Your task to perform on an android device: change timer sound Image 0: 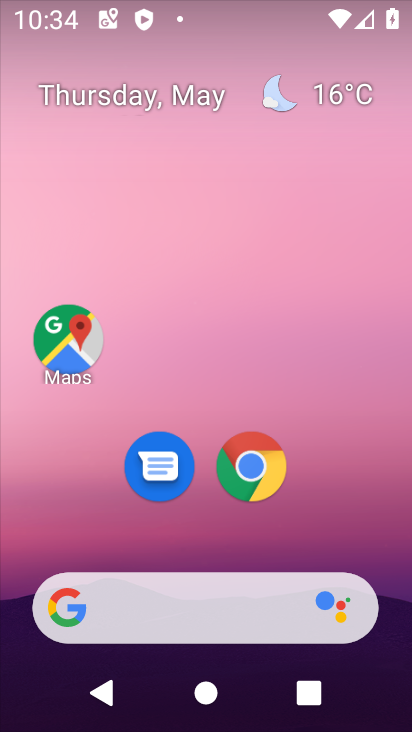
Step 0: drag from (309, 512) to (361, 142)
Your task to perform on an android device: change timer sound Image 1: 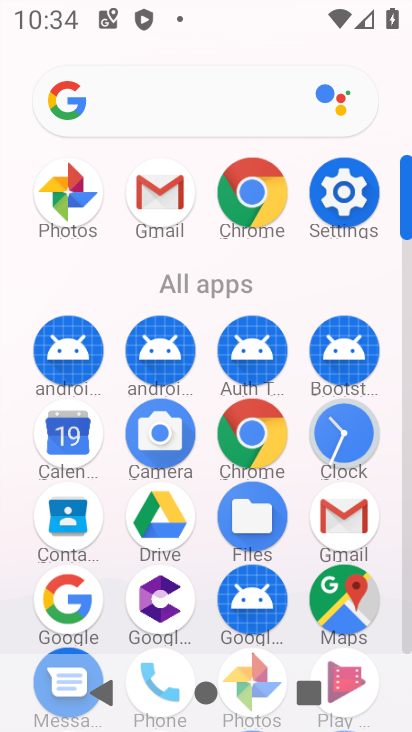
Step 1: click (321, 434)
Your task to perform on an android device: change timer sound Image 2: 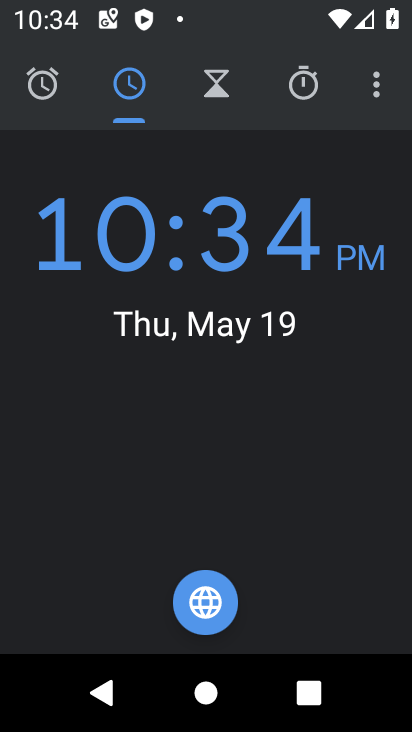
Step 2: click (379, 74)
Your task to perform on an android device: change timer sound Image 3: 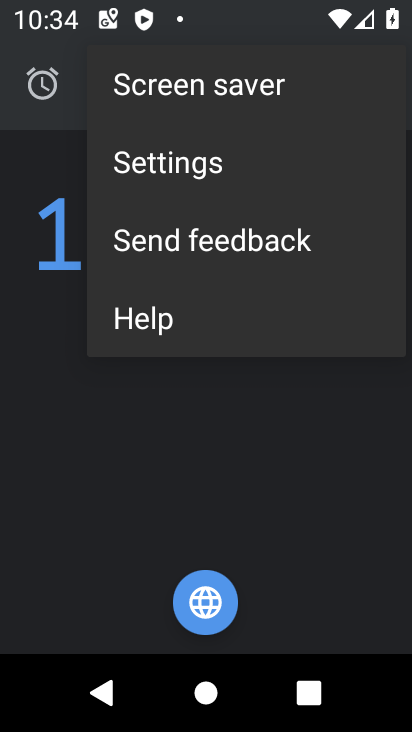
Step 3: click (219, 161)
Your task to perform on an android device: change timer sound Image 4: 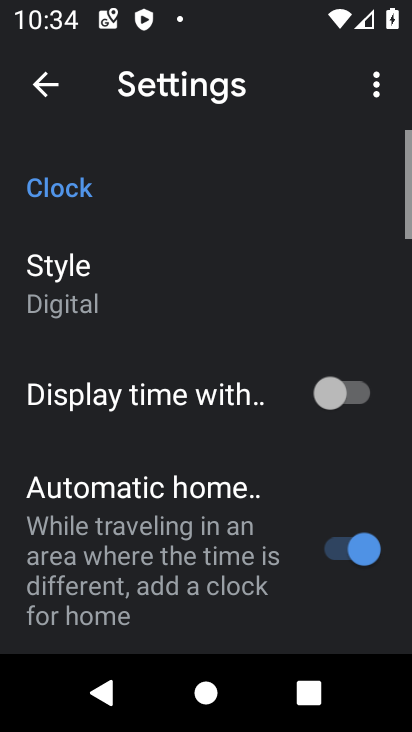
Step 4: drag from (199, 486) to (281, 68)
Your task to perform on an android device: change timer sound Image 5: 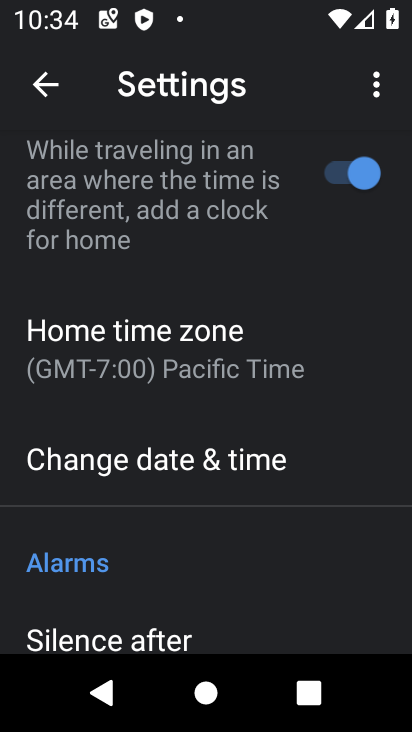
Step 5: drag from (113, 518) to (242, 127)
Your task to perform on an android device: change timer sound Image 6: 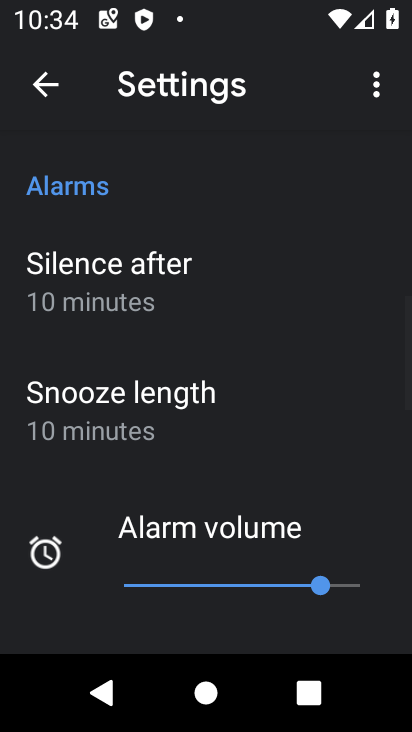
Step 6: drag from (148, 481) to (265, 163)
Your task to perform on an android device: change timer sound Image 7: 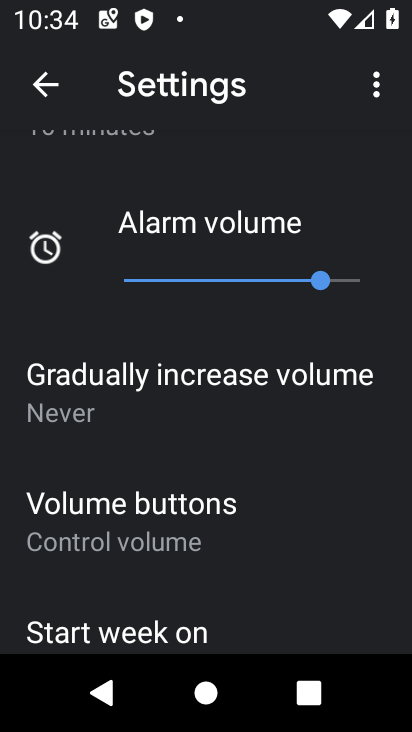
Step 7: drag from (158, 517) to (277, 127)
Your task to perform on an android device: change timer sound Image 8: 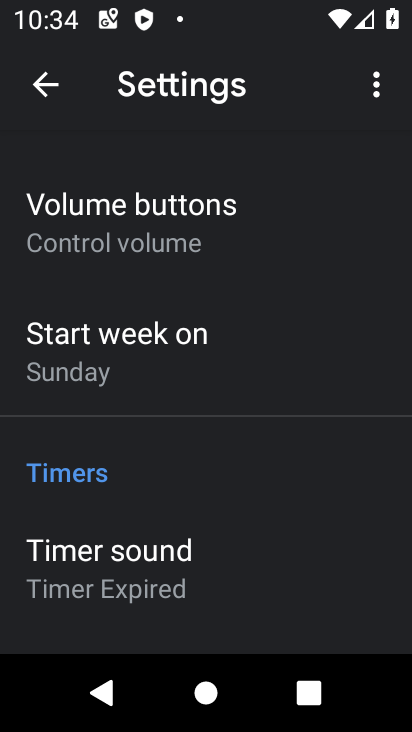
Step 8: click (134, 581)
Your task to perform on an android device: change timer sound Image 9: 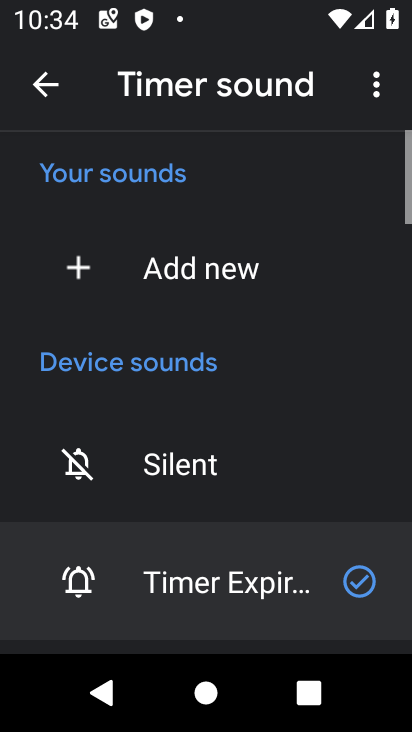
Step 9: task complete